Your task to perform on an android device: uninstall "Google Chat" Image 0: 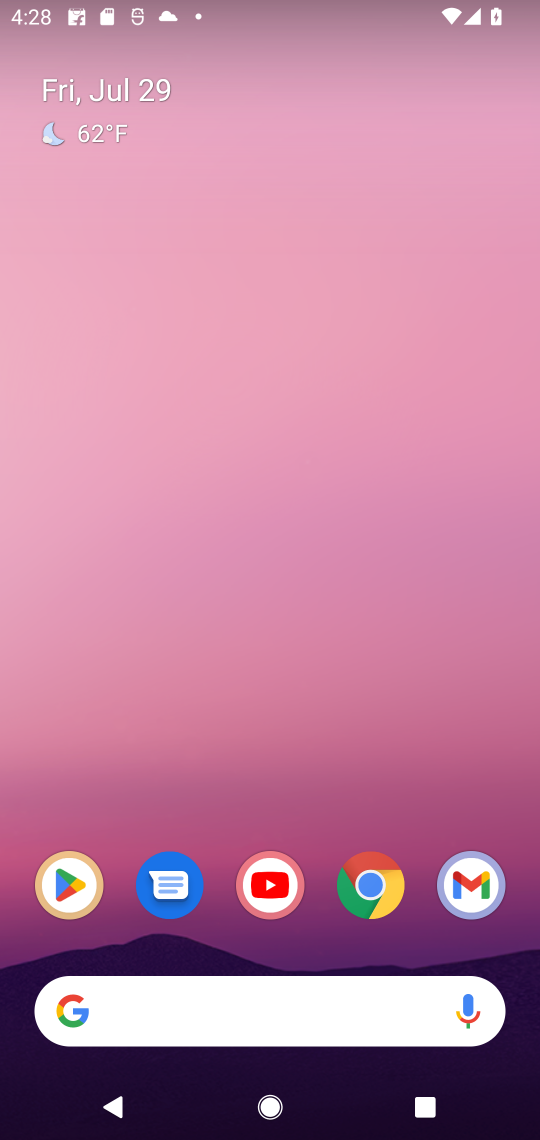
Step 0: click (87, 889)
Your task to perform on an android device: uninstall "Google Chat" Image 1: 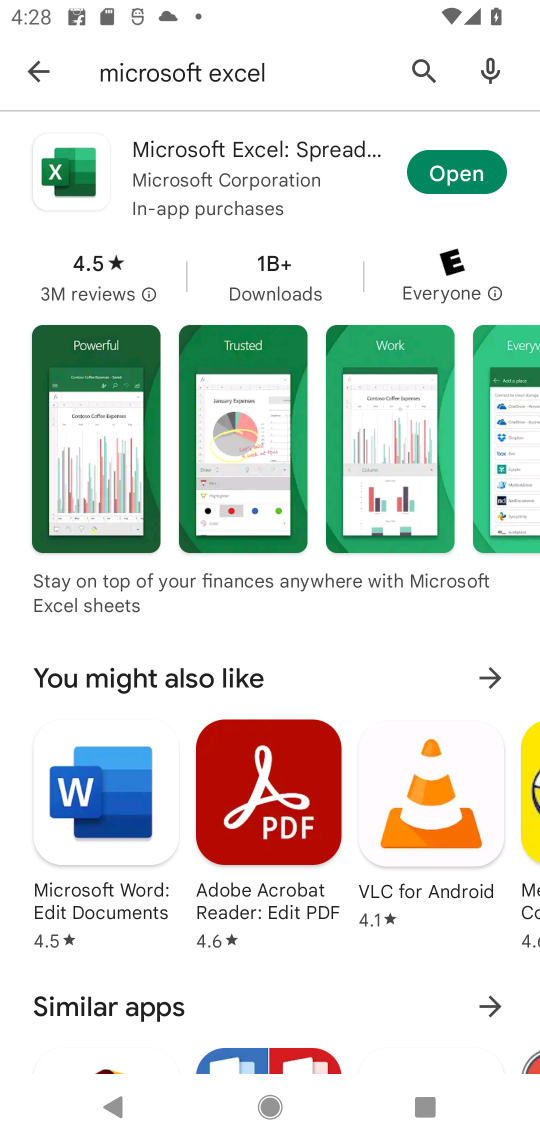
Step 1: click (415, 62)
Your task to perform on an android device: uninstall "Google Chat" Image 2: 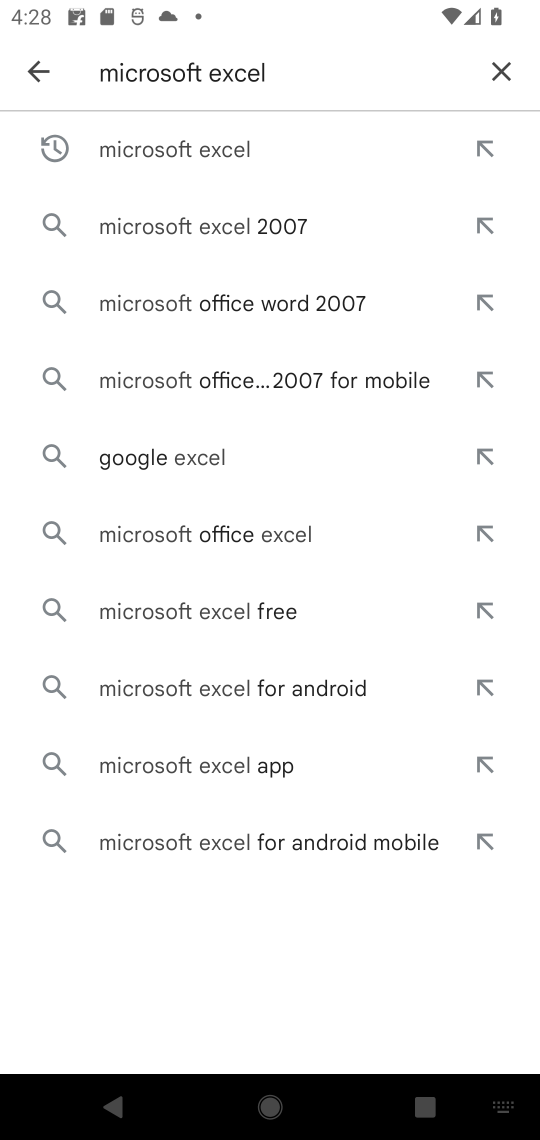
Step 2: click (507, 68)
Your task to perform on an android device: uninstall "Google Chat" Image 3: 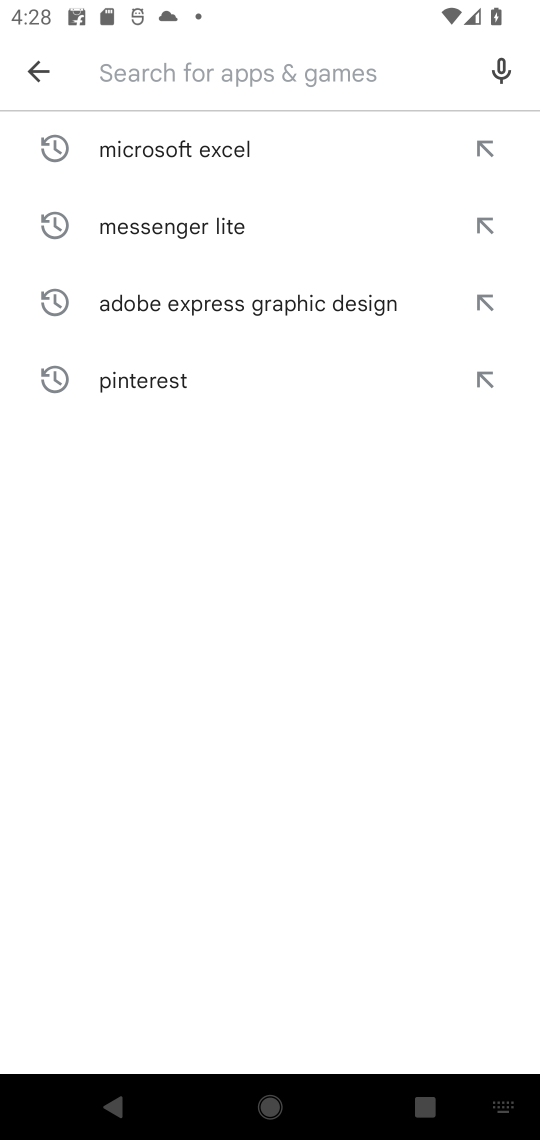
Step 3: type "Google Chat"
Your task to perform on an android device: uninstall "Google Chat" Image 4: 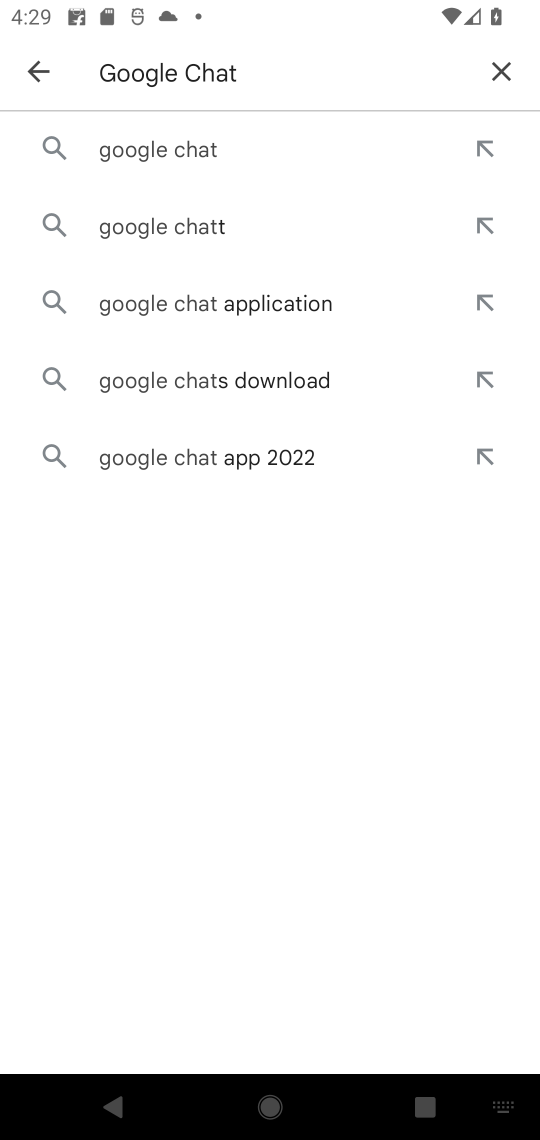
Step 4: click (197, 133)
Your task to perform on an android device: uninstall "Google Chat" Image 5: 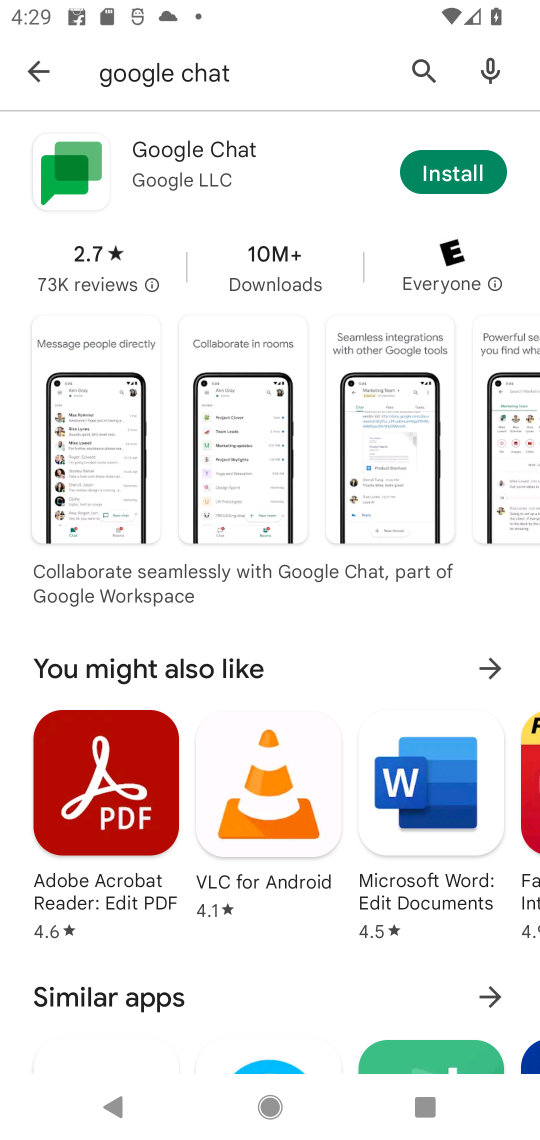
Step 5: task complete